Your task to perform on an android device: Open the phone app and click the voicemail tab. Image 0: 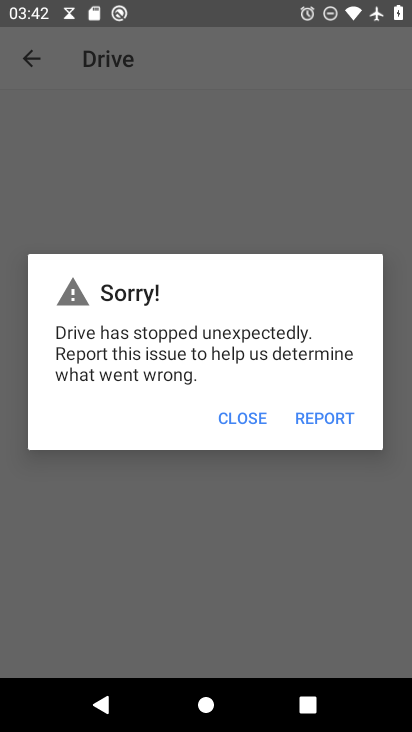
Step 0: drag from (181, 613) to (287, 228)
Your task to perform on an android device: Open the phone app and click the voicemail tab. Image 1: 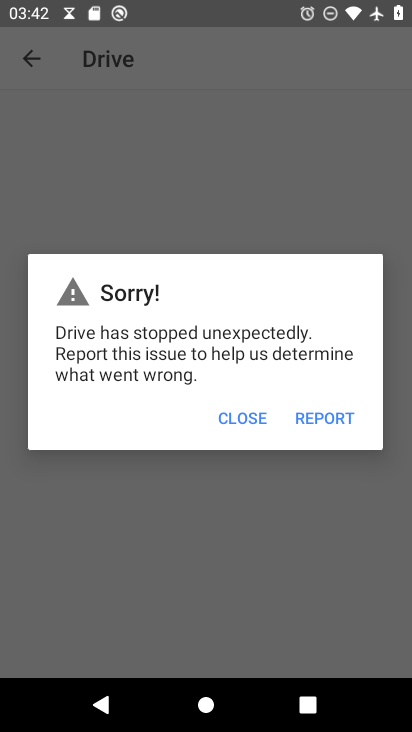
Step 1: press home button
Your task to perform on an android device: Open the phone app and click the voicemail tab. Image 2: 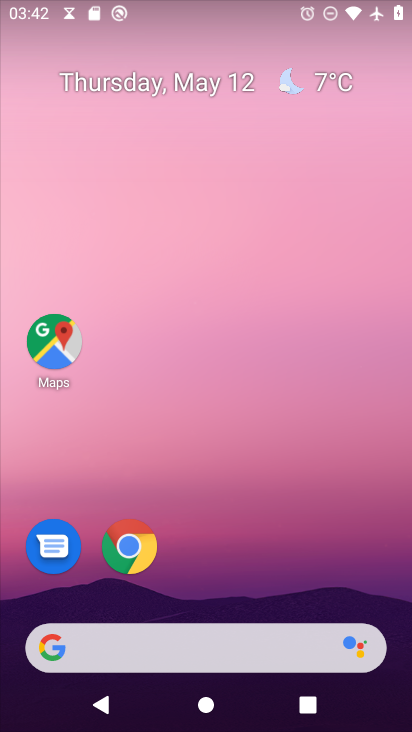
Step 2: drag from (173, 649) to (295, 231)
Your task to perform on an android device: Open the phone app and click the voicemail tab. Image 3: 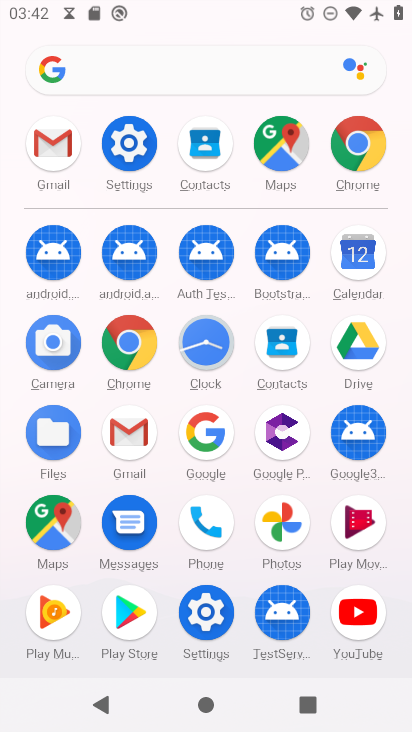
Step 3: click (205, 511)
Your task to perform on an android device: Open the phone app and click the voicemail tab. Image 4: 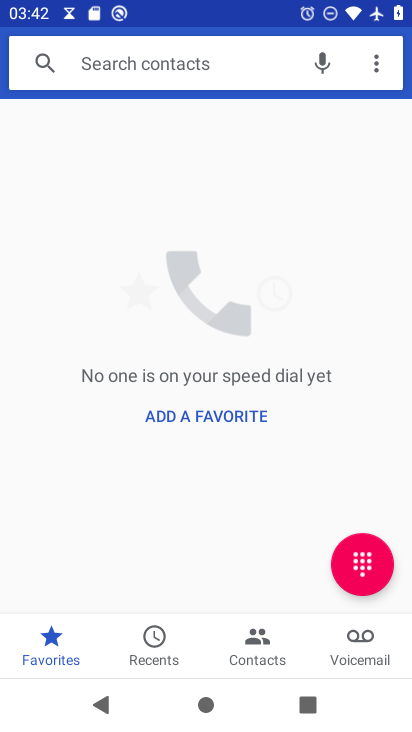
Step 4: click (353, 652)
Your task to perform on an android device: Open the phone app and click the voicemail tab. Image 5: 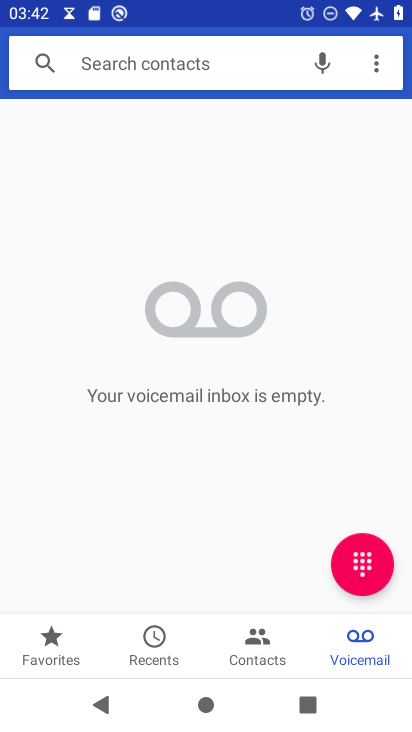
Step 5: task complete